Your task to perform on an android device: remove spam from my inbox in the gmail app Image 0: 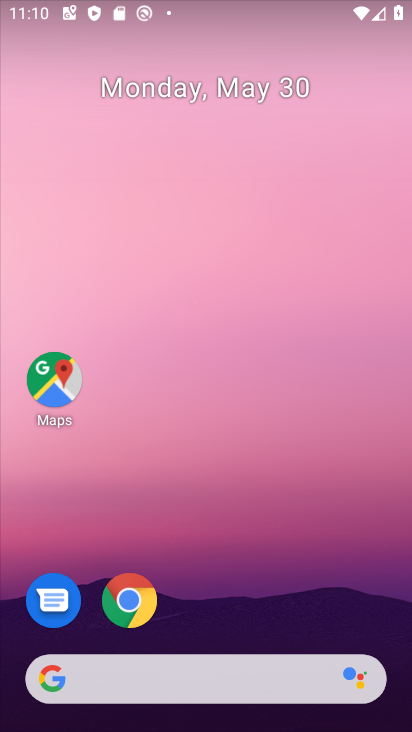
Step 0: drag from (243, 727) to (243, 616)
Your task to perform on an android device: remove spam from my inbox in the gmail app Image 1: 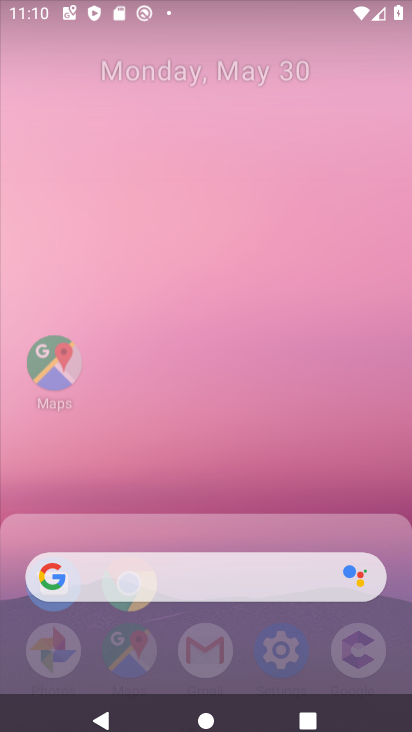
Step 1: drag from (223, 142) to (220, 64)
Your task to perform on an android device: remove spam from my inbox in the gmail app Image 2: 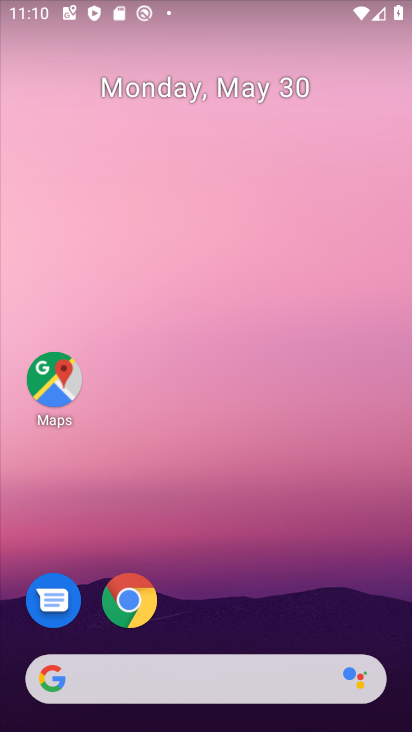
Step 2: drag from (228, 725) to (226, 119)
Your task to perform on an android device: remove spam from my inbox in the gmail app Image 3: 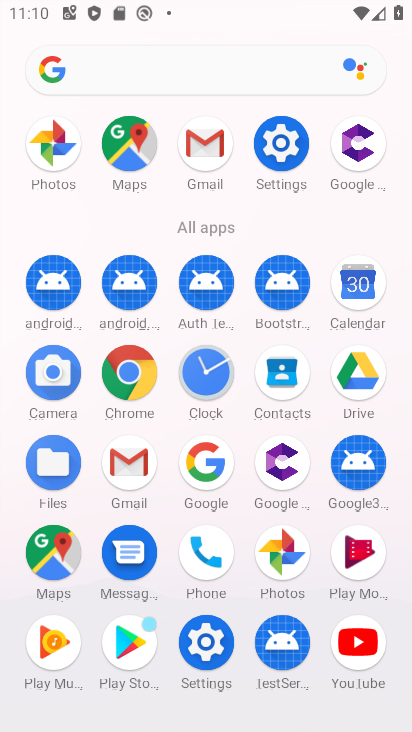
Step 3: click (122, 466)
Your task to perform on an android device: remove spam from my inbox in the gmail app Image 4: 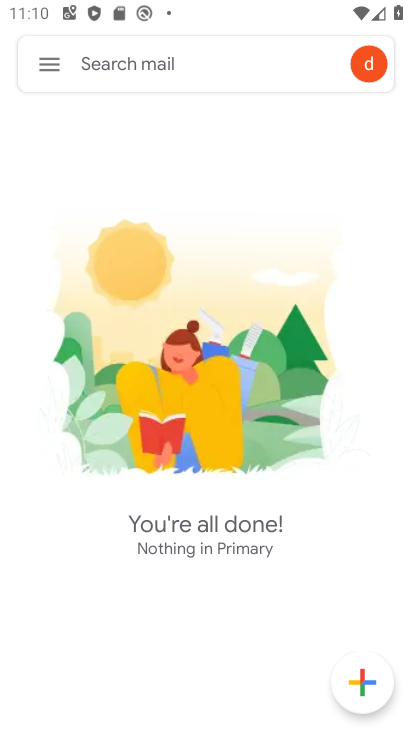
Step 4: click (42, 68)
Your task to perform on an android device: remove spam from my inbox in the gmail app Image 5: 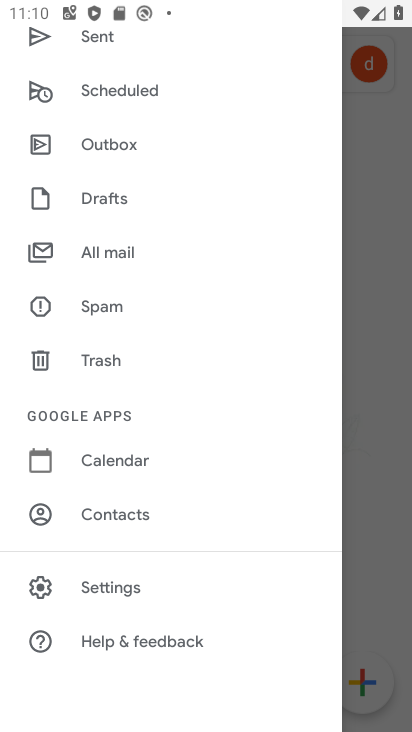
Step 5: drag from (149, 150) to (200, 630)
Your task to perform on an android device: remove spam from my inbox in the gmail app Image 6: 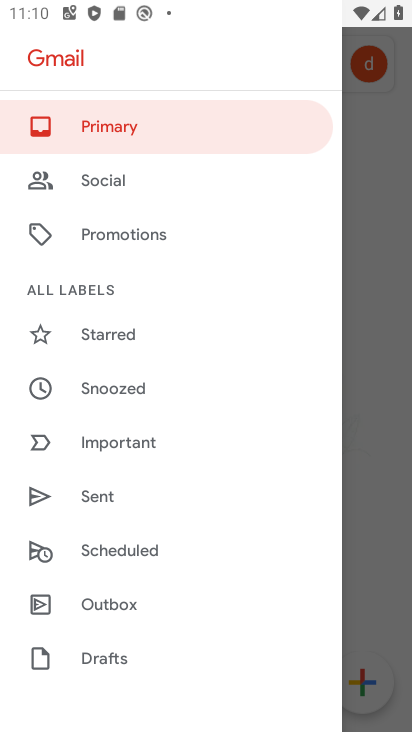
Step 6: drag from (174, 99) to (197, 606)
Your task to perform on an android device: remove spam from my inbox in the gmail app Image 7: 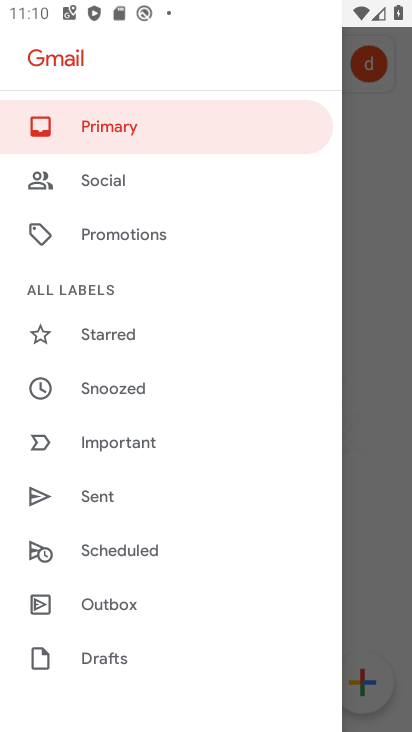
Step 7: click (119, 128)
Your task to perform on an android device: remove spam from my inbox in the gmail app Image 8: 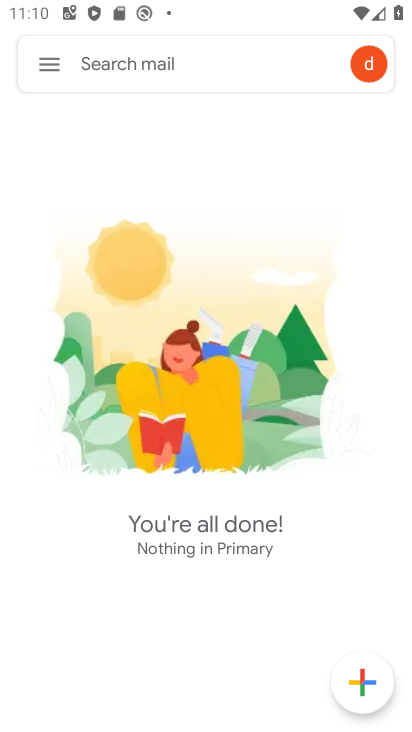
Step 8: task complete